Your task to perform on an android device: Is it going to rain this weekend? Image 0: 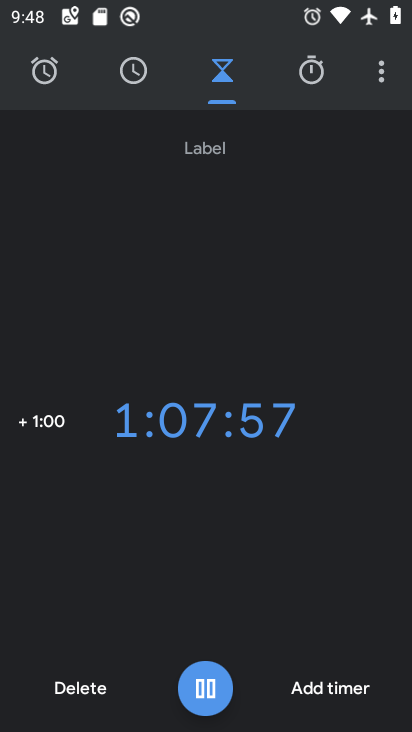
Step 0: press home button
Your task to perform on an android device: Is it going to rain this weekend? Image 1: 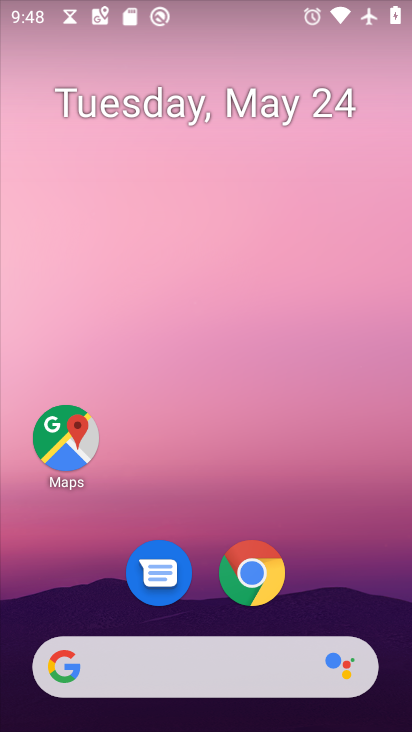
Step 1: drag from (358, 528) to (315, 121)
Your task to perform on an android device: Is it going to rain this weekend? Image 2: 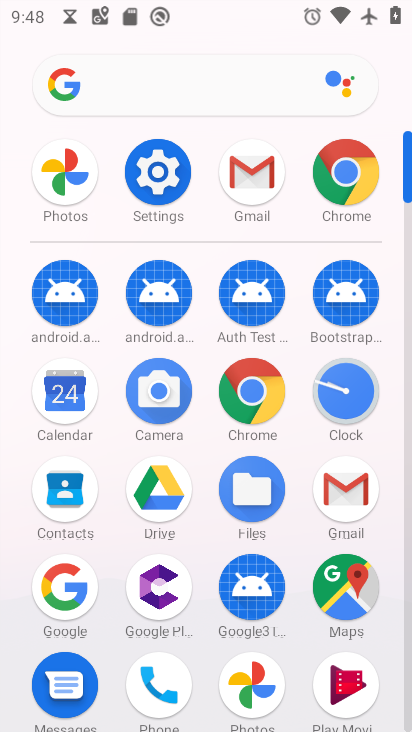
Step 2: click (53, 89)
Your task to perform on an android device: Is it going to rain this weekend? Image 3: 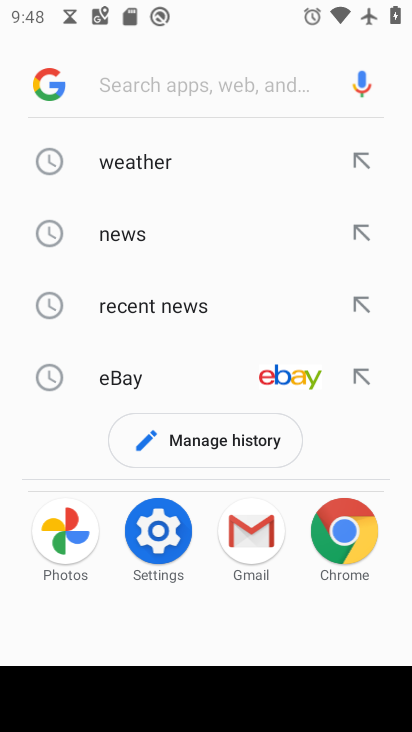
Step 3: click (28, 101)
Your task to perform on an android device: Is it going to rain this weekend? Image 4: 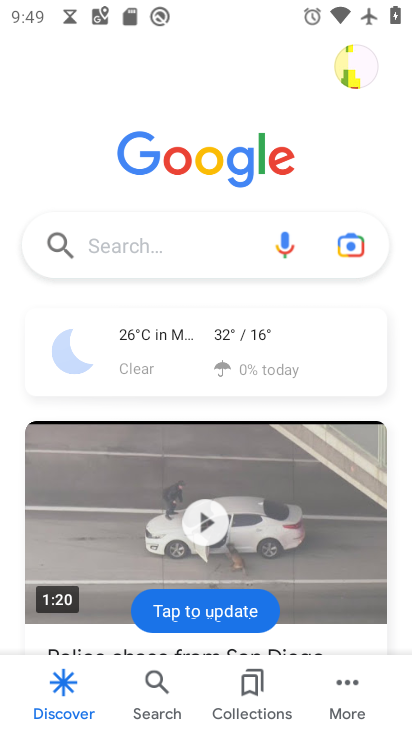
Step 4: click (243, 365)
Your task to perform on an android device: Is it going to rain this weekend? Image 5: 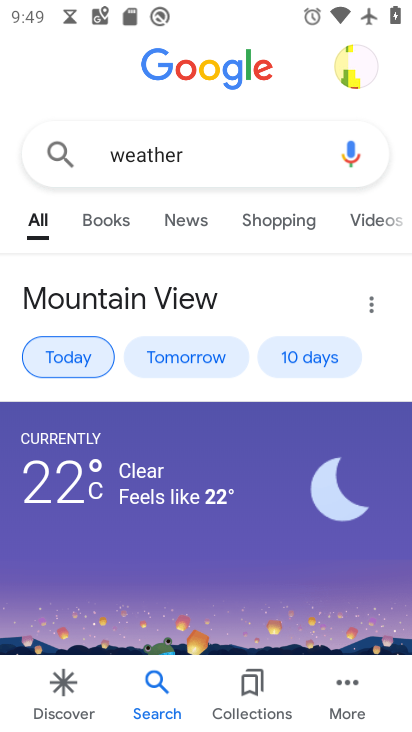
Step 5: task complete